Your task to perform on an android device: View the shopping cart on target.com. Search for "usb-a to usb-b" on target.com, select the first entry, and add it to the cart. Image 0: 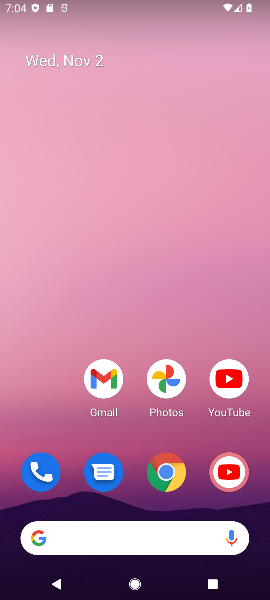
Step 0: click (166, 480)
Your task to perform on an android device: View the shopping cart on target.com. Search for "usb-a to usb-b" on target.com, select the first entry, and add it to the cart. Image 1: 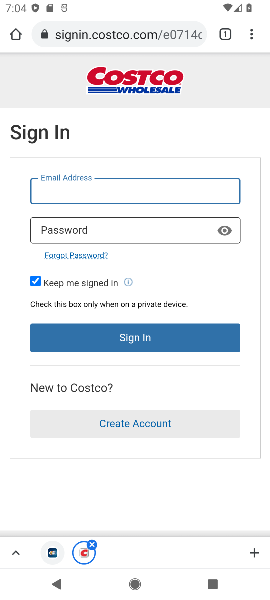
Step 1: click (141, 33)
Your task to perform on an android device: View the shopping cart on target.com. Search for "usb-a to usb-b" on target.com, select the first entry, and add it to the cart. Image 2: 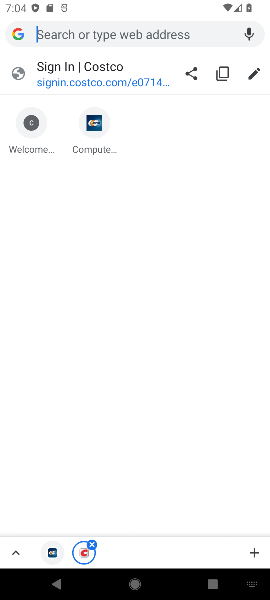
Step 2: type "target.com"
Your task to perform on an android device: View the shopping cart on target.com. Search for "usb-a to usb-b" on target.com, select the first entry, and add it to the cart. Image 3: 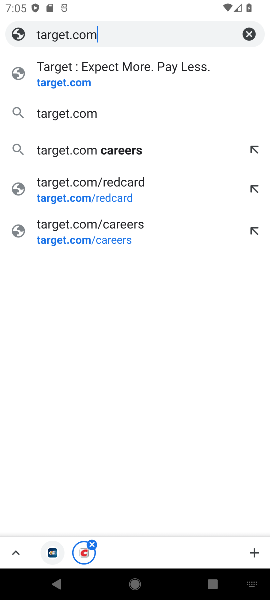
Step 3: click (159, 75)
Your task to perform on an android device: View the shopping cart on target.com. Search for "usb-a to usb-b" on target.com, select the first entry, and add it to the cart. Image 4: 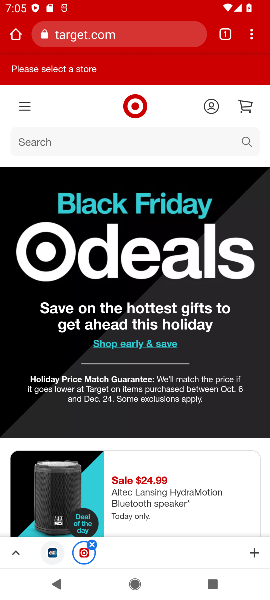
Step 4: click (226, 139)
Your task to perform on an android device: View the shopping cart on target.com. Search for "usb-a to usb-b" on target.com, select the first entry, and add it to the cart. Image 5: 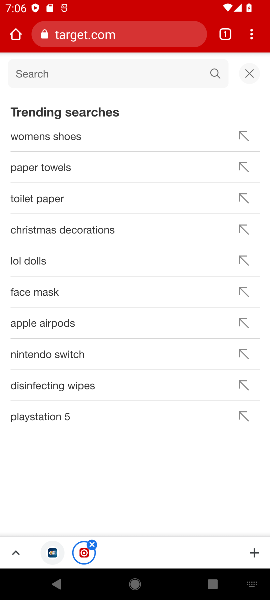
Step 5: type "usb-a to usb-b"
Your task to perform on an android device: View the shopping cart on target.com. Search for "usb-a to usb-b" on target.com, select the first entry, and add it to the cart. Image 6: 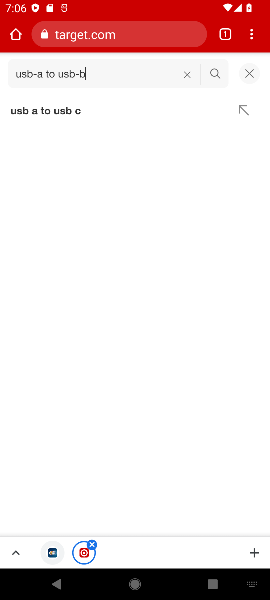
Step 6: click (42, 109)
Your task to perform on an android device: View the shopping cart on target.com. Search for "usb-a to usb-b" on target.com, select the first entry, and add it to the cart. Image 7: 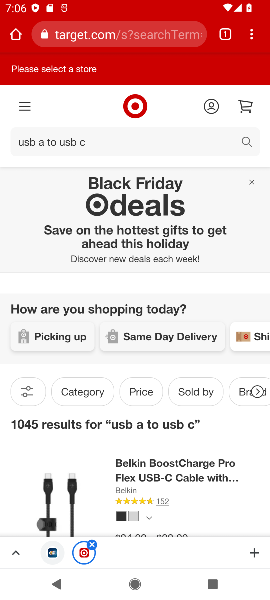
Step 7: drag from (167, 391) to (165, 89)
Your task to perform on an android device: View the shopping cart on target.com. Search for "usb-a to usb-b" on target.com, select the first entry, and add it to the cart. Image 8: 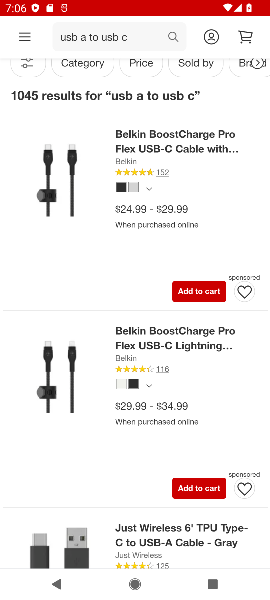
Step 8: click (198, 292)
Your task to perform on an android device: View the shopping cart on target.com. Search for "usb-a to usb-b" on target.com, select the first entry, and add it to the cart. Image 9: 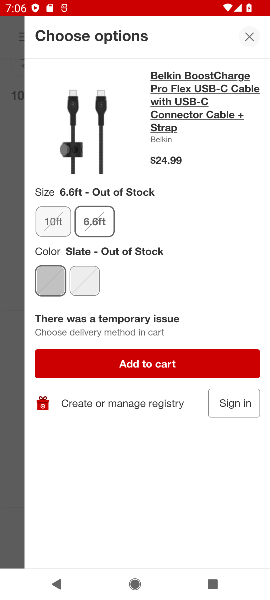
Step 9: click (126, 366)
Your task to perform on an android device: View the shopping cart on target.com. Search for "usb-a to usb-b" on target.com, select the first entry, and add it to the cart. Image 10: 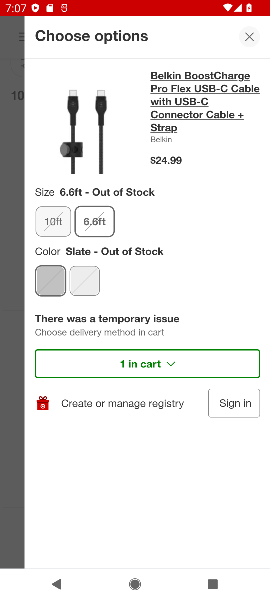
Step 10: task complete